Your task to perform on an android device: add a contact Image 0: 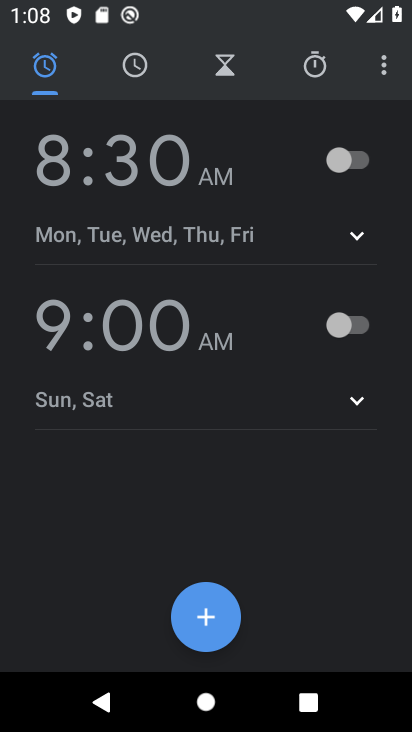
Step 0: press home button
Your task to perform on an android device: add a contact Image 1: 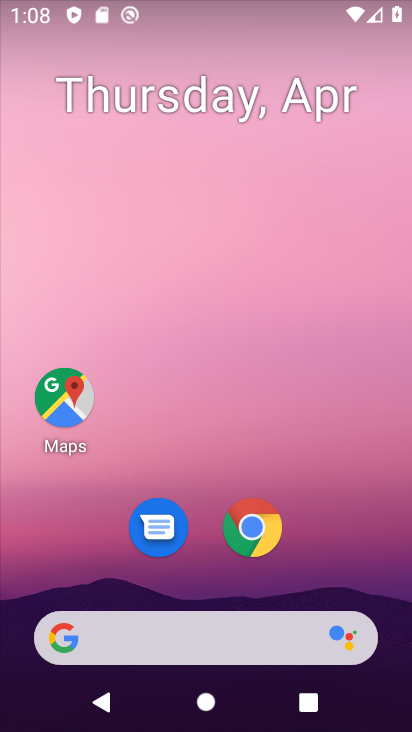
Step 1: drag from (371, 555) to (281, 114)
Your task to perform on an android device: add a contact Image 2: 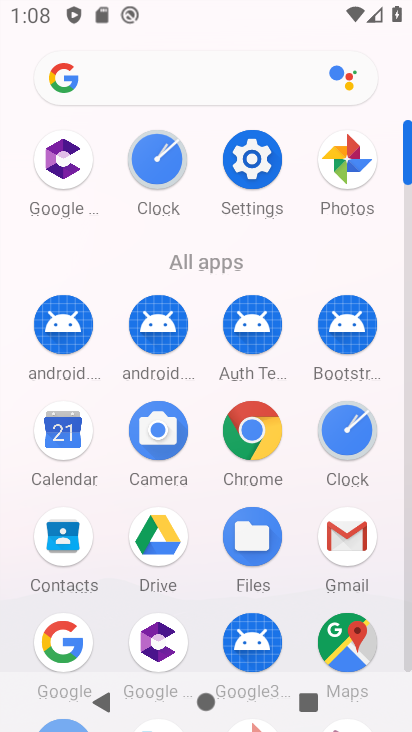
Step 2: click (407, 654)
Your task to perform on an android device: add a contact Image 3: 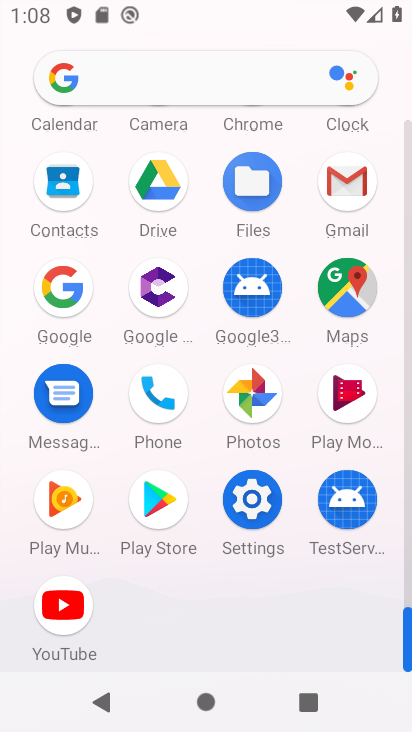
Step 3: click (63, 186)
Your task to perform on an android device: add a contact Image 4: 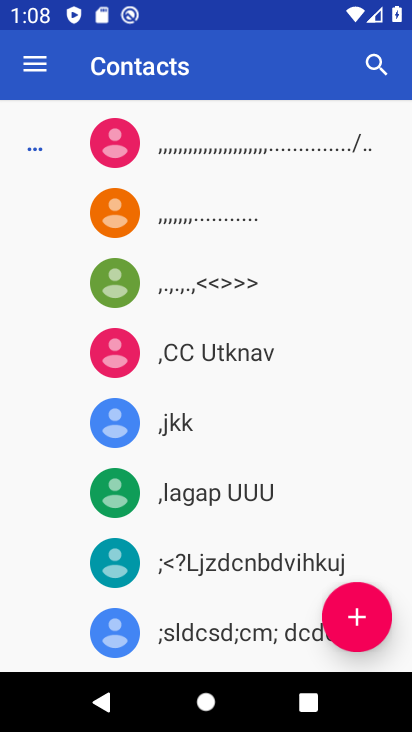
Step 4: click (359, 613)
Your task to perform on an android device: add a contact Image 5: 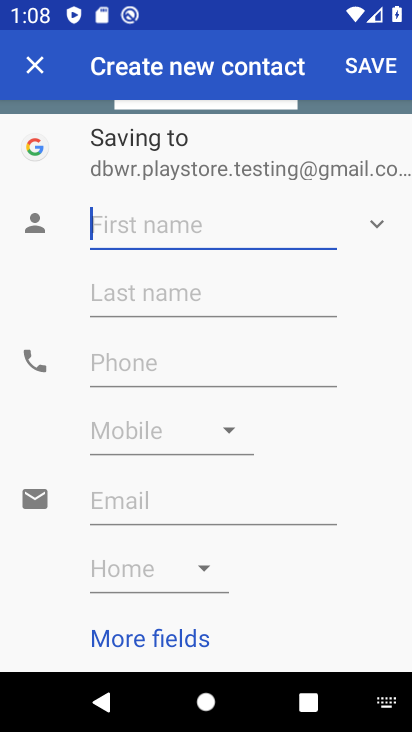
Step 5: type "dghnnhgf"
Your task to perform on an android device: add a contact Image 6: 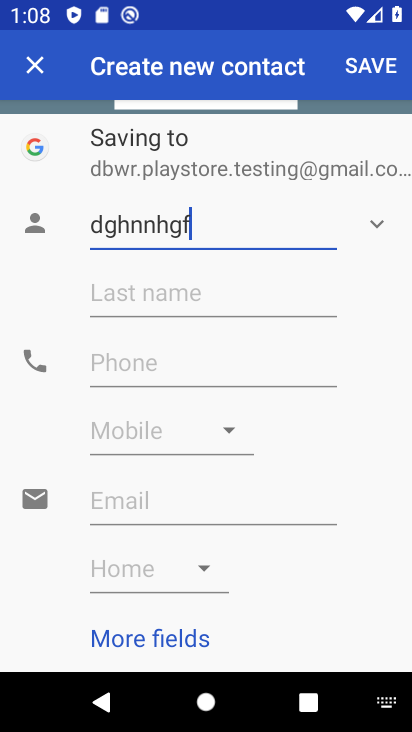
Step 6: click (210, 378)
Your task to perform on an android device: add a contact Image 7: 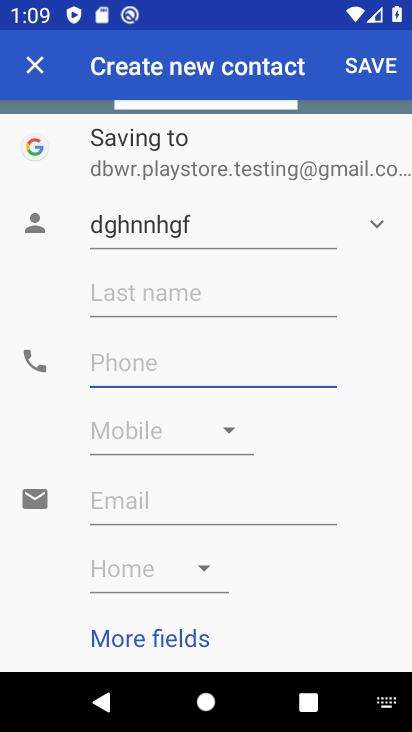
Step 7: type "5785434"
Your task to perform on an android device: add a contact Image 8: 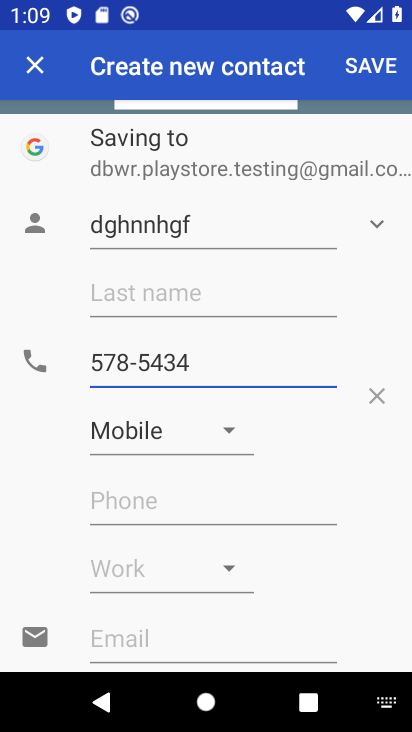
Step 8: click (243, 426)
Your task to perform on an android device: add a contact Image 9: 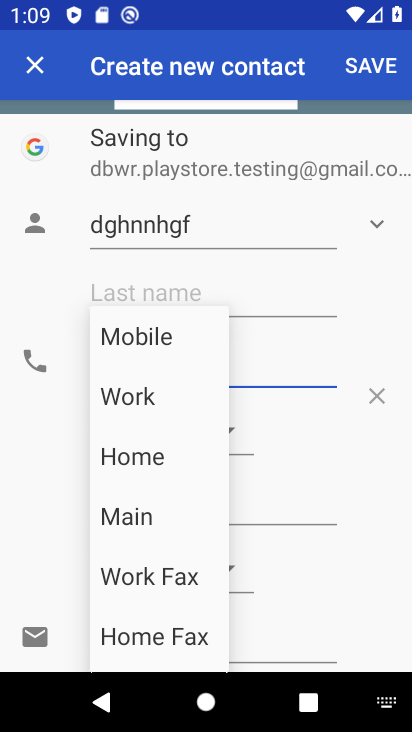
Step 9: click (136, 403)
Your task to perform on an android device: add a contact Image 10: 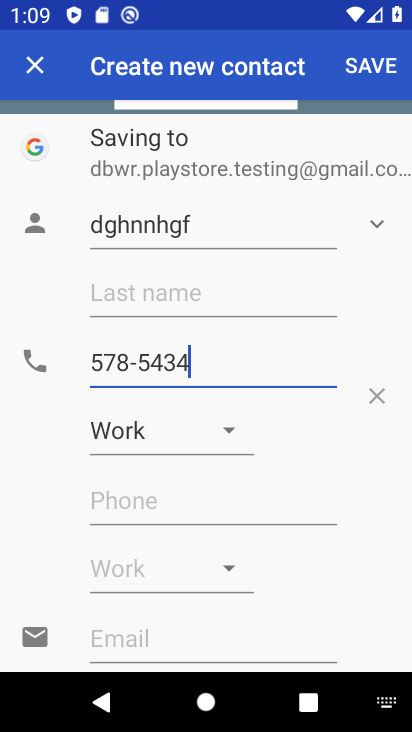
Step 10: click (365, 60)
Your task to perform on an android device: add a contact Image 11: 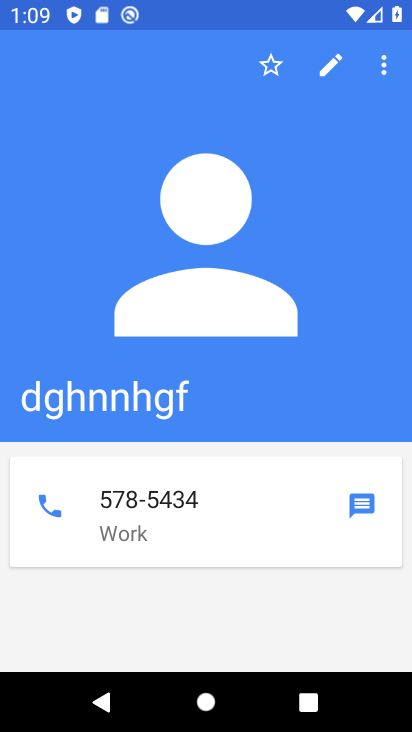
Step 11: task complete